Your task to perform on an android device: find snoozed emails in the gmail app Image 0: 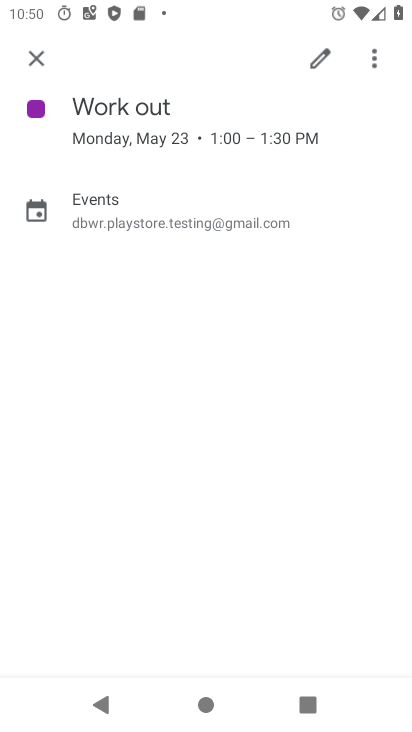
Step 0: drag from (361, 651) to (242, 82)
Your task to perform on an android device: find snoozed emails in the gmail app Image 1: 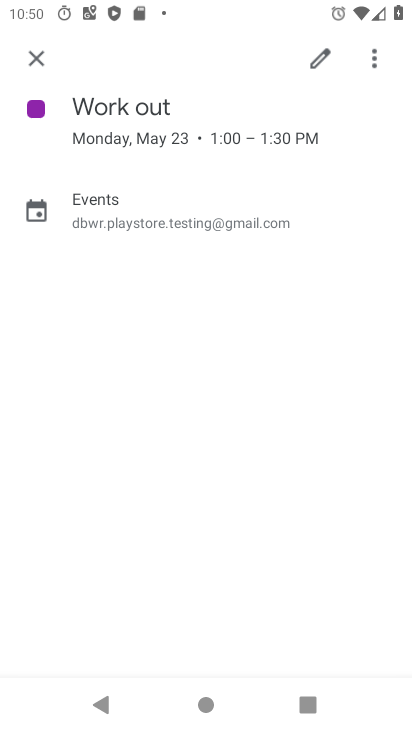
Step 1: click (35, 59)
Your task to perform on an android device: find snoozed emails in the gmail app Image 2: 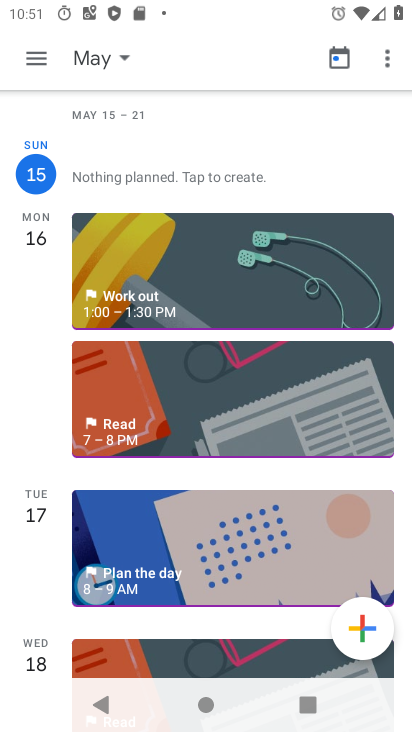
Step 2: press back button
Your task to perform on an android device: find snoozed emails in the gmail app Image 3: 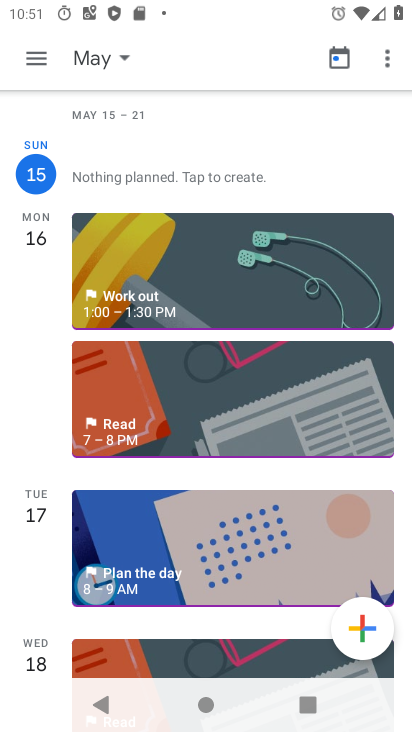
Step 3: press back button
Your task to perform on an android device: find snoozed emails in the gmail app Image 4: 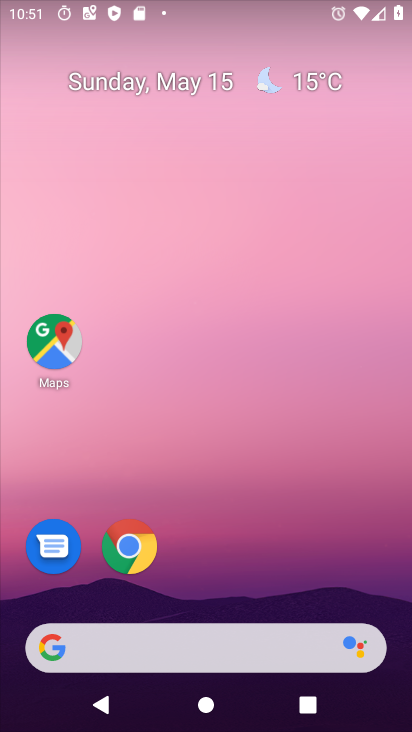
Step 4: drag from (230, 597) to (4, 57)
Your task to perform on an android device: find snoozed emails in the gmail app Image 5: 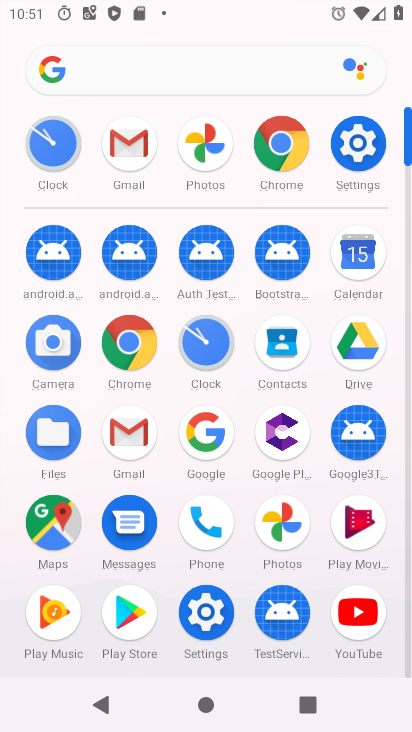
Step 5: click (119, 429)
Your task to perform on an android device: find snoozed emails in the gmail app Image 6: 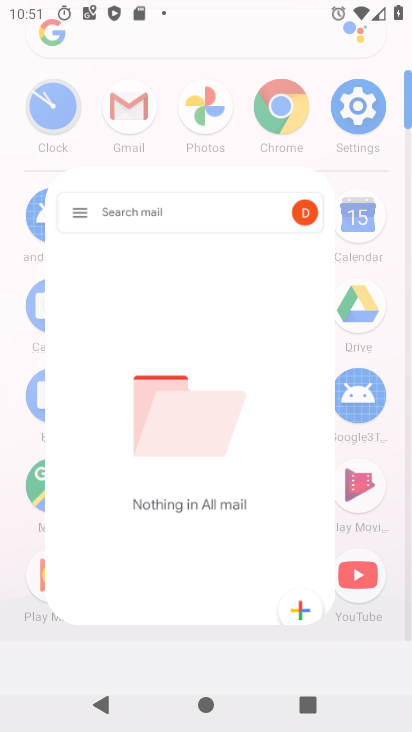
Step 6: click (116, 427)
Your task to perform on an android device: find snoozed emails in the gmail app Image 7: 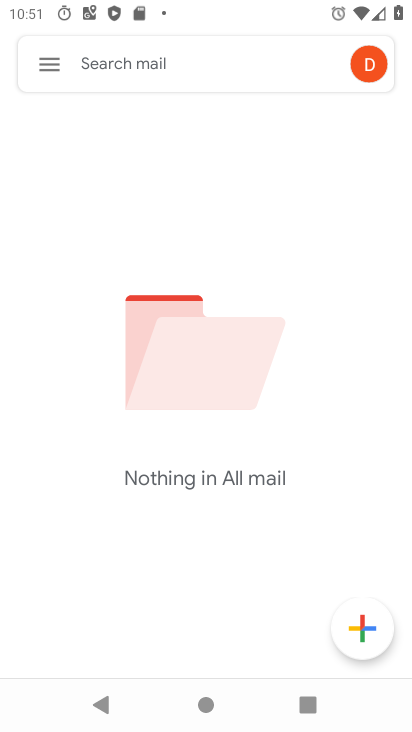
Step 7: click (44, 56)
Your task to perform on an android device: find snoozed emails in the gmail app Image 8: 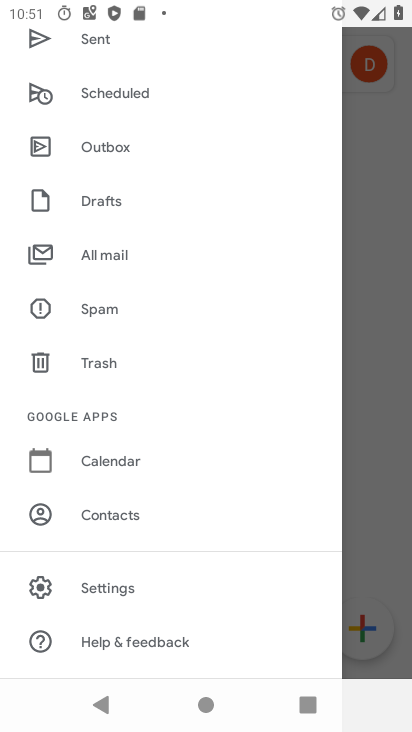
Step 8: drag from (93, 109) to (88, 567)
Your task to perform on an android device: find snoozed emails in the gmail app Image 9: 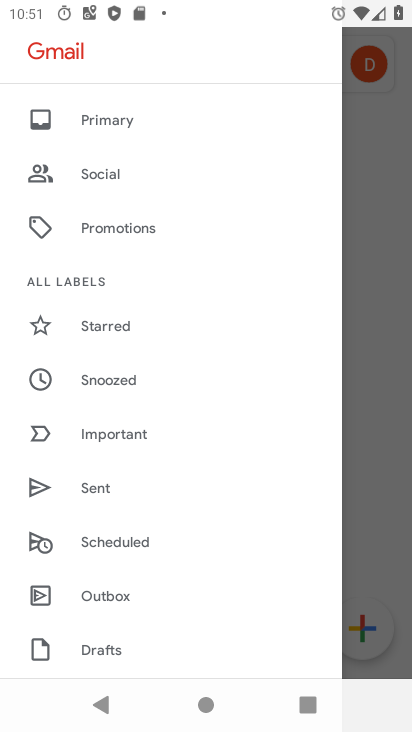
Step 9: click (99, 376)
Your task to perform on an android device: find snoozed emails in the gmail app Image 10: 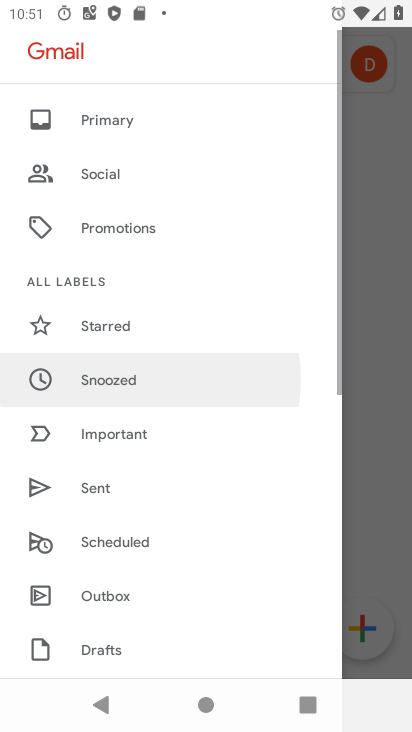
Step 10: click (99, 377)
Your task to perform on an android device: find snoozed emails in the gmail app Image 11: 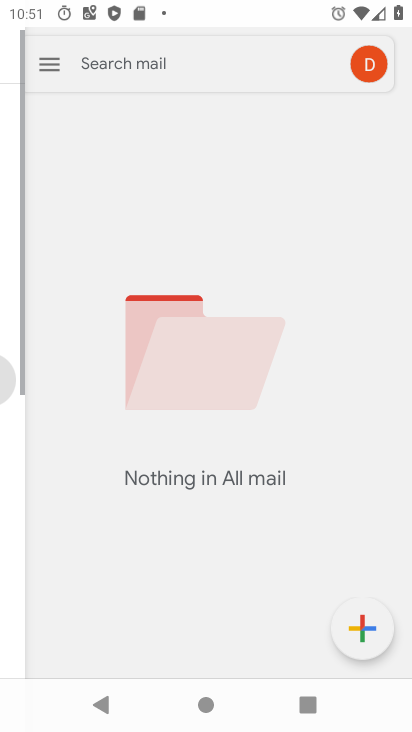
Step 11: click (99, 378)
Your task to perform on an android device: find snoozed emails in the gmail app Image 12: 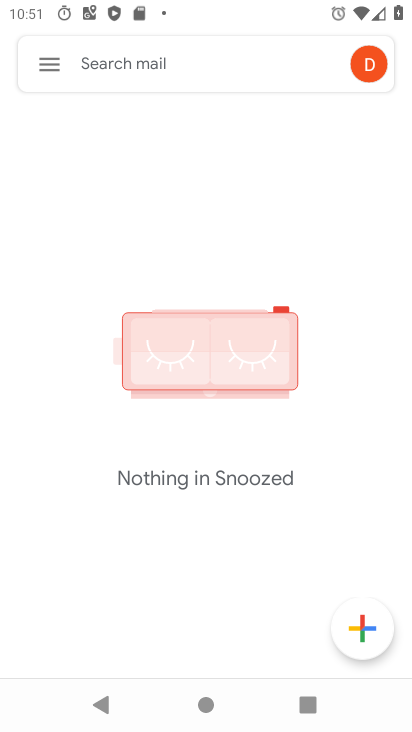
Step 12: task complete